Your task to perform on an android device: Is it going to rain tomorrow? Image 0: 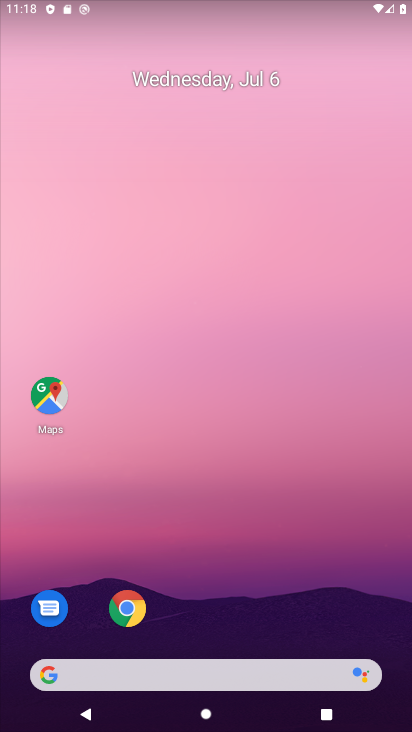
Step 0: drag from (272, 605) to (222, 366)
Your task to perform on an android device: Is it going to rain tomorrow? Image 1: 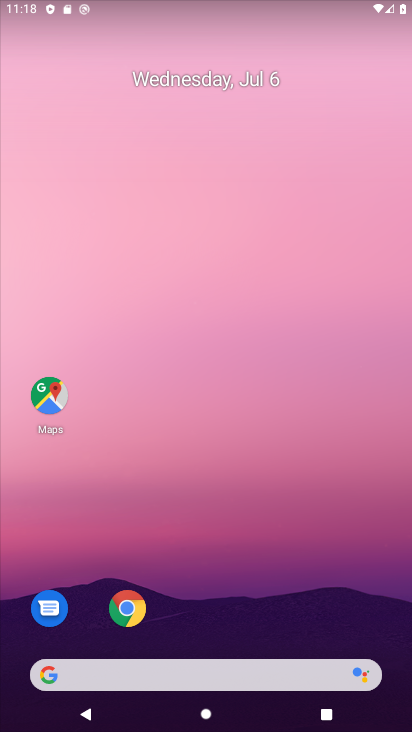
Step 1: drag from (7, 117) to (404, 439)
Your task to perform on an android device: Is it going to rain tomorrow? Image 2: 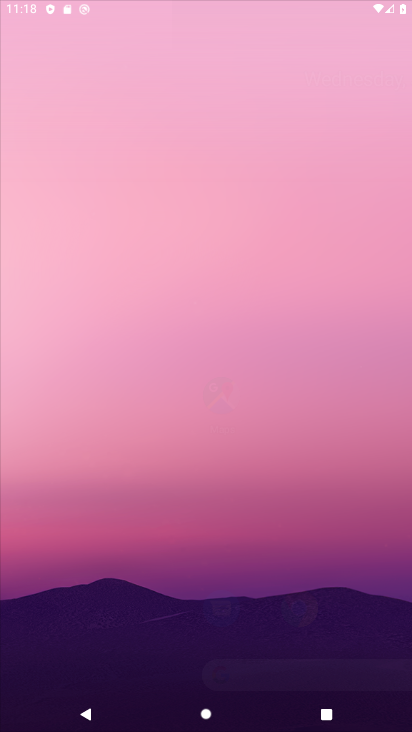
Step 2: click (195, 84)
Your task to perform on an android device: Is it going to rain tomorrow? Image 3: 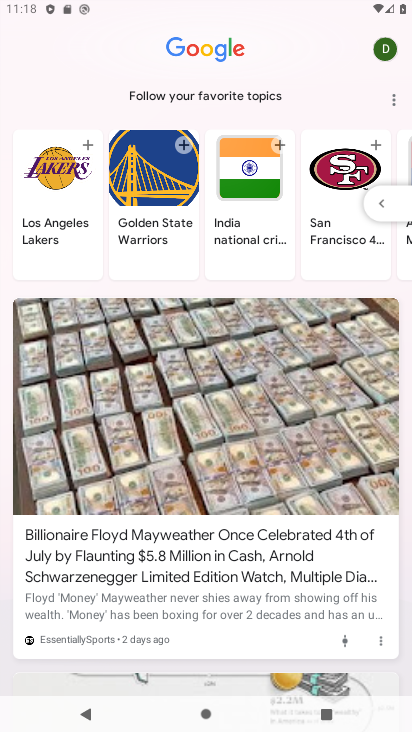
Step 3: drag from (174, 292) to (172, 650)
Your task to perform on an android device: Is it going to rain tomorrow? Image 4: 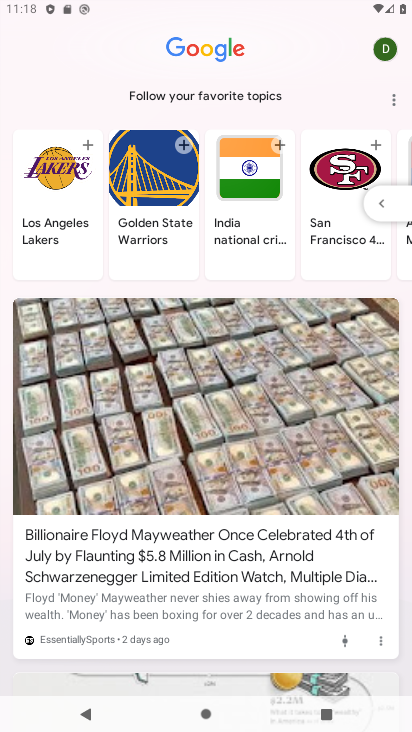
Step 4: drag from (322, 679) to (180, 222)
Your task to perform on an android device: Is it going to rain tomorrow? Image 5: 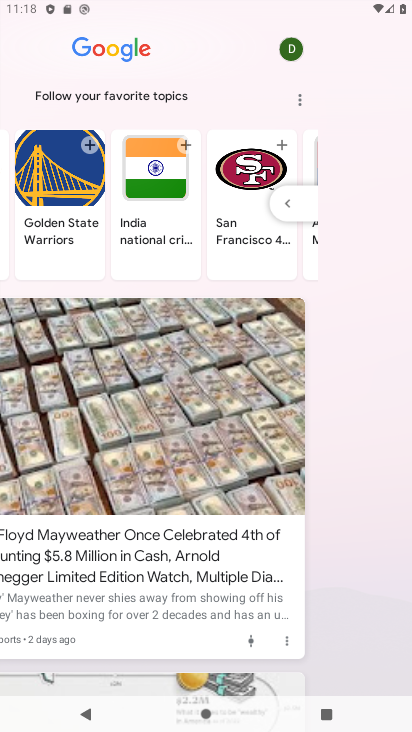
Step 5: press back button
Your task to perform on an android device: Is it going to rain tomorrow? Image 6: 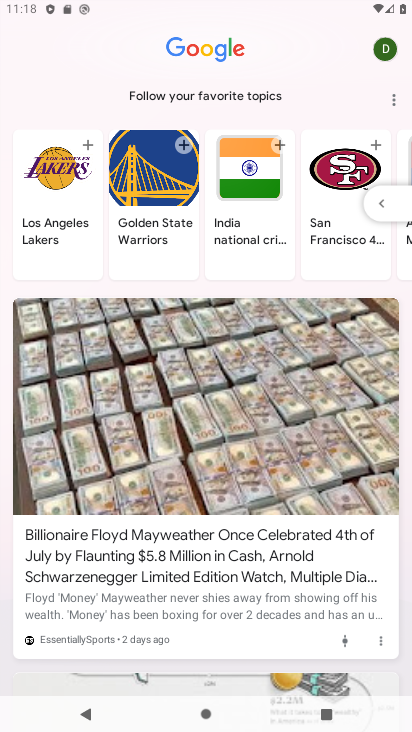
Step 6: press home button
Your task to perform on an android device: Is it going to rain tomorrow? Image 7: 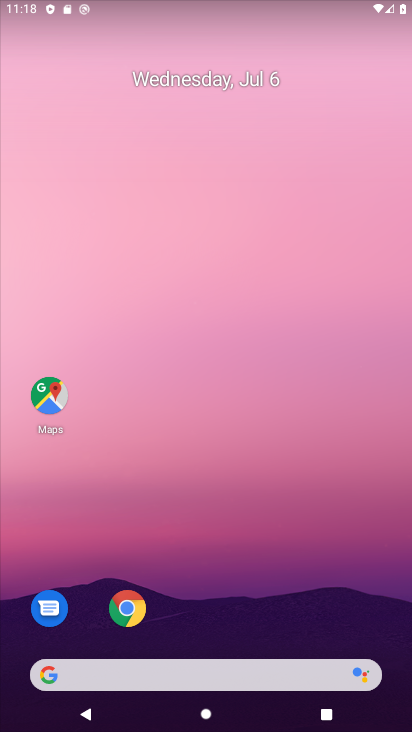
Step 7: drag from (256, 561) to (153, 76)
Your task to perform on an android device: Is it going to rain tomorrow? Image 8: 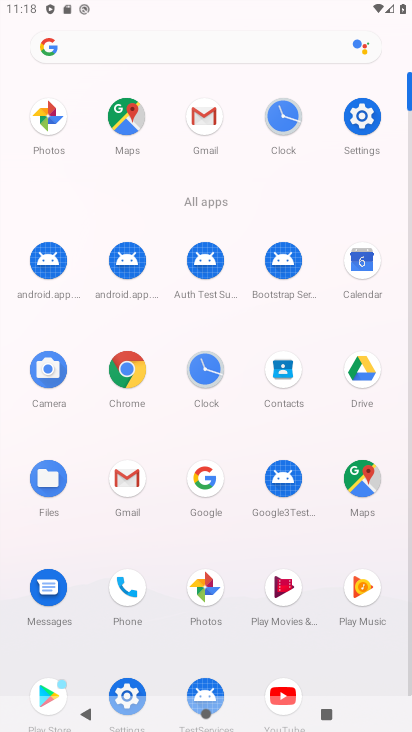
Step 8: click (205, 480)
Your task to perform on an android device: Is it going to rain tomorrow? Image 9: 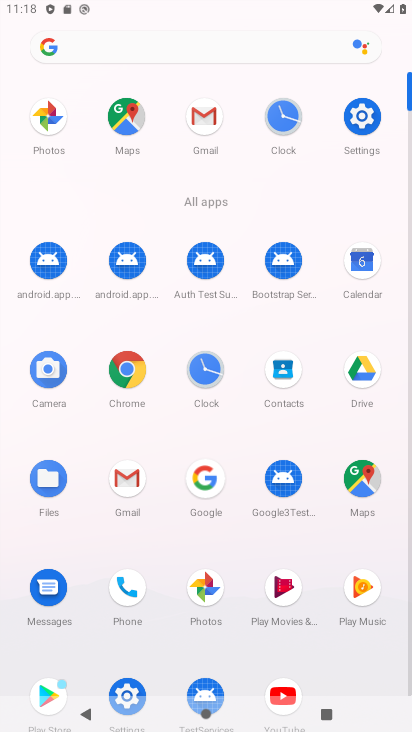
Step 9: click (207, 479)
Your task to perform on an android device: Is it going to rain tomorrow? Image 10: 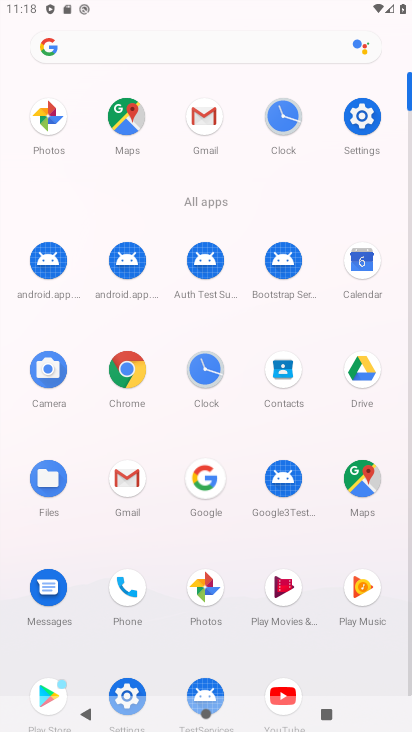
Step 10: click (207, 479)
Your task to perform on an android device: Is it going to rain tomorrow? Image 11: 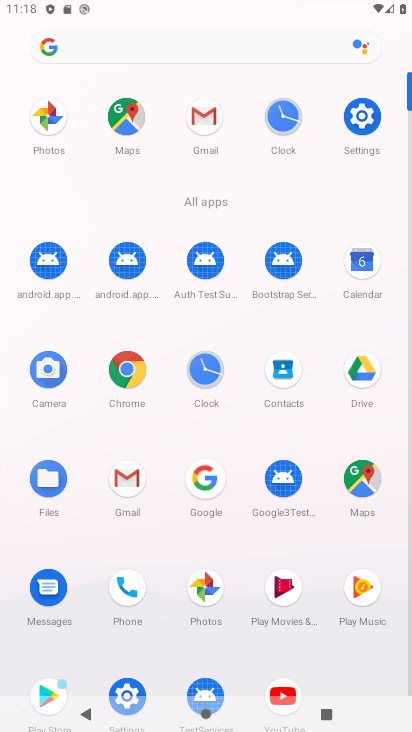
Step 11: click (208, 480)
Your task to perform on an android device: Is it going to rain tomorrow? Image 12: 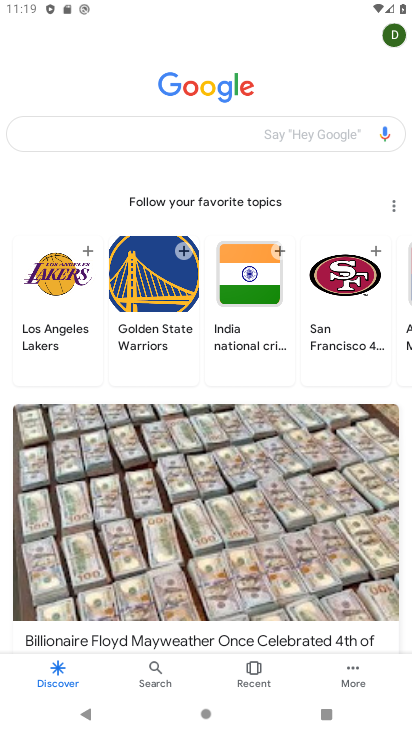
Step 12: type "Is it going to rain tomorrow?"
Your task to perform on an android device: Is it going to rain tomorrow? Image 13: 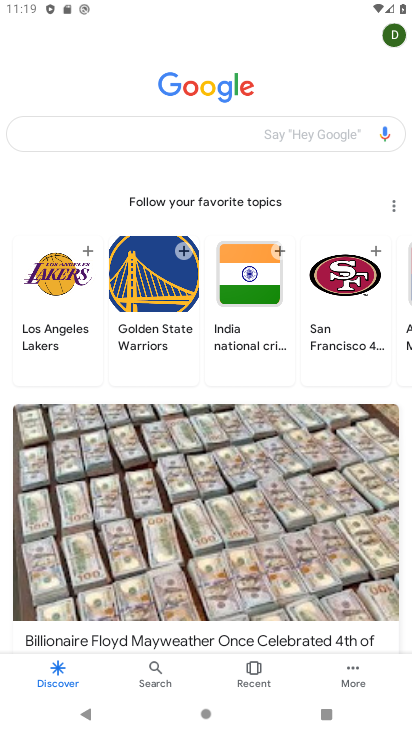
Step 13: click (290, 135)
Your task to perform on an android device: Is it going to rain tomorrow? Image 14: 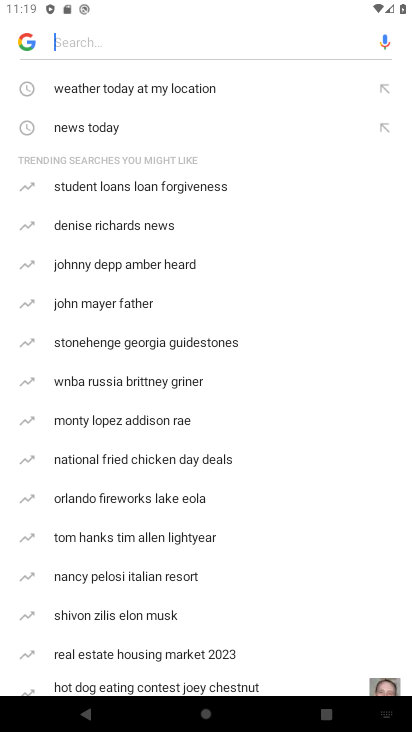
Step 14: click (153, 82)
Your task to perform on an android device: Is it going to rain tomorrow? Image 15: 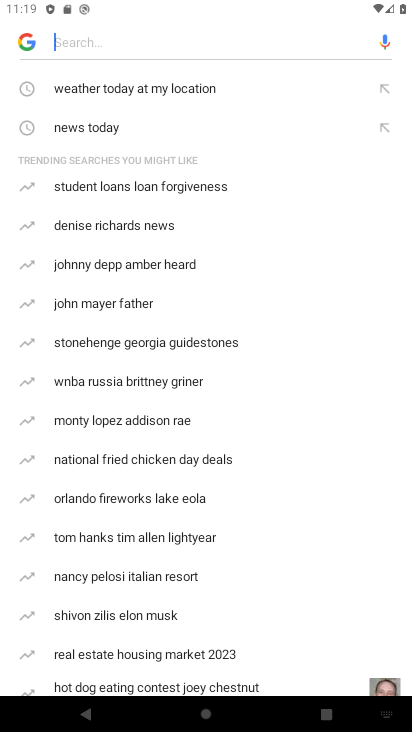
Step 15: click (153, 82)
Your task to perform on an android device: Is it going to rain tomorrow? Image 16: 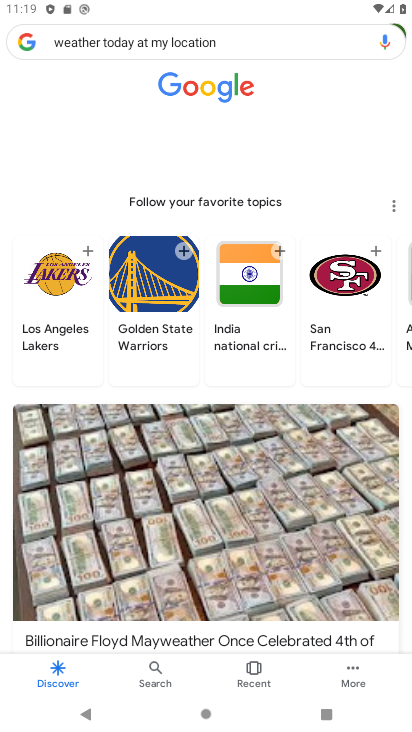
Step 16: click (153, 82)
Your task to perform on an android device: Is it going to rain tomorrow? Image 17: 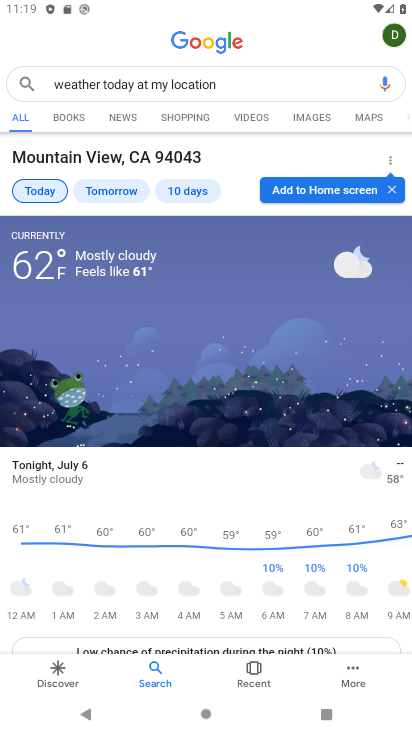
Step 17: task complete